Your task to perform on an android device: Open the web browser Image 0: 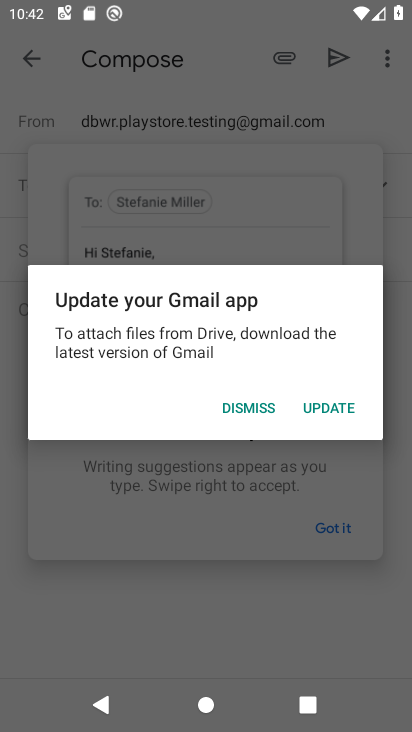
Step 0: press home button
Your task to perform on an android device: Open the web browser Image 1: 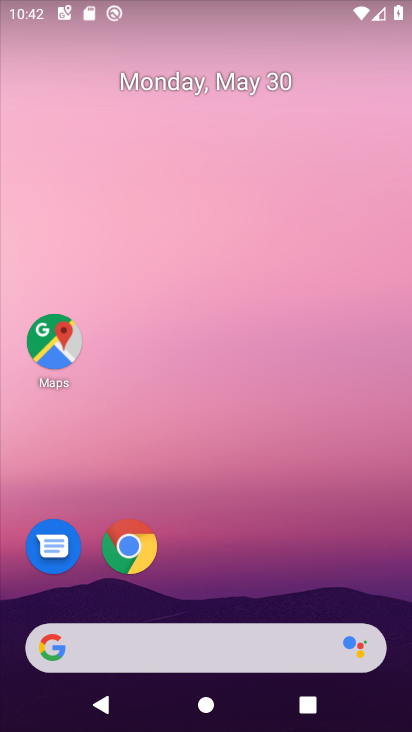
Step 1: click (138, 547)
Your task to perform on an android device: Open the web browser Image 2: 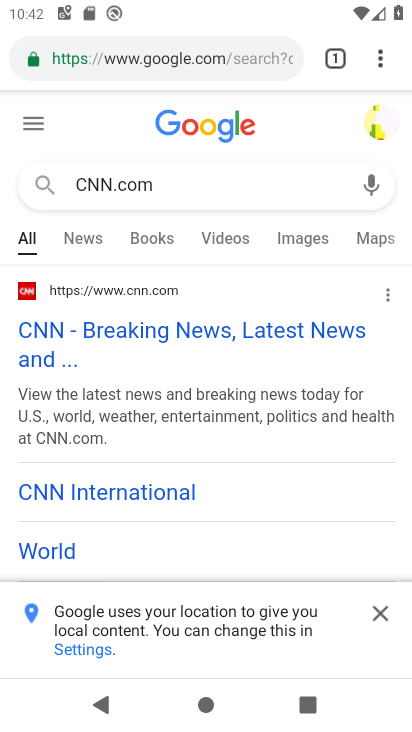
Step 2: click (381, 605)
Your task to perform on an android device: Open the web browser Image 3: 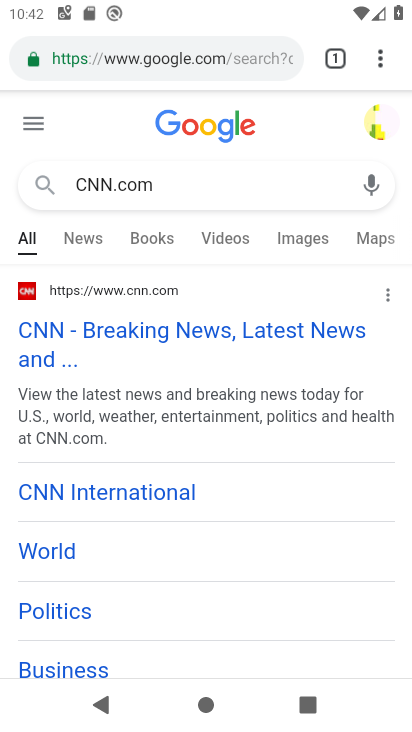
Step 3: task complete